Your task to perform on an android device: see sites visited before in the chrome app Image 0: 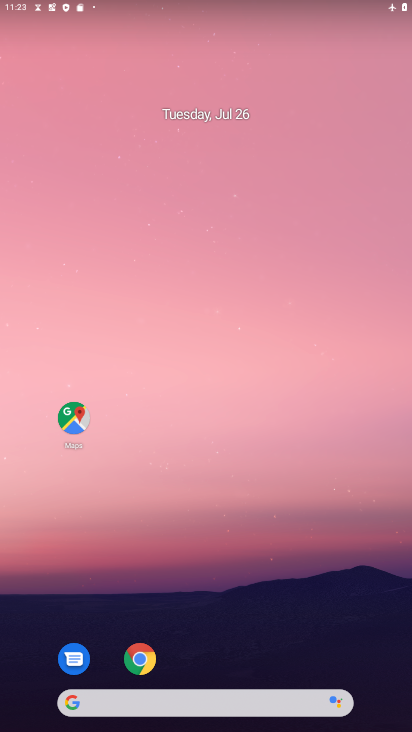
Step 0: click (140, 658)
Your task to perform on an android device: see sites visited before in the chrome app Image 1: 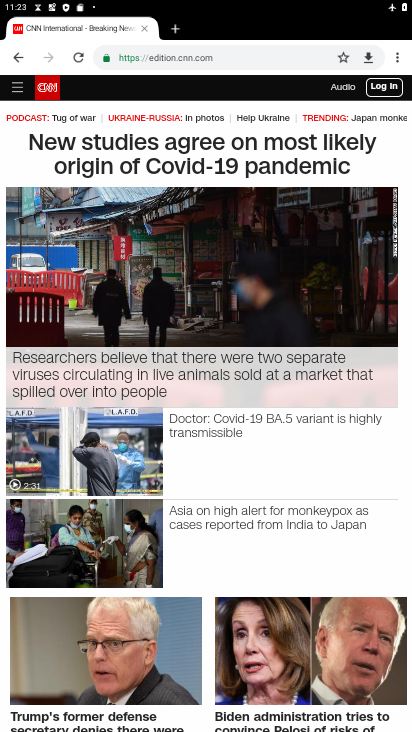
Step 1: click (398, 58)
Your task to perform on an android device: see sites visited before in the chrome app Image 2: 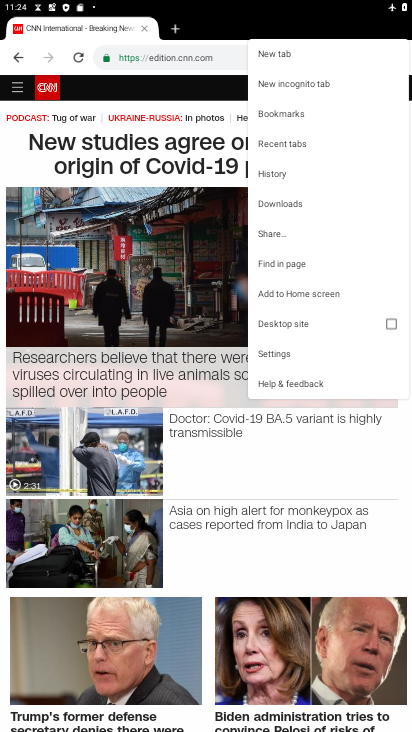
Step 2: click (280, 172)
Your task to perform on an android device: see sites visited before in the chrome app Image 3: 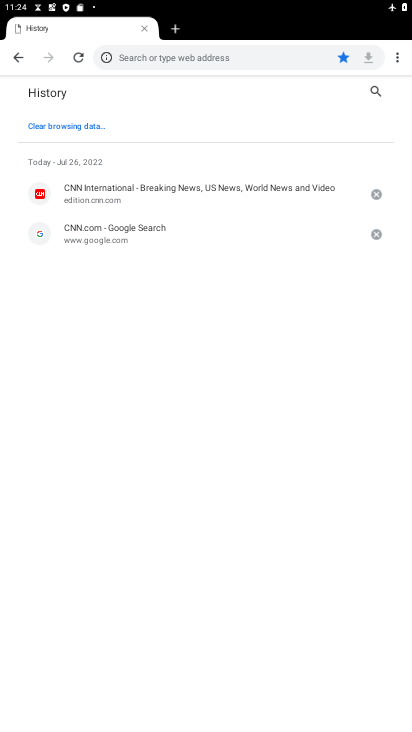
Step 3: task complete